Your task to perform on an android device: Find coffee shops on Maps Image 0: 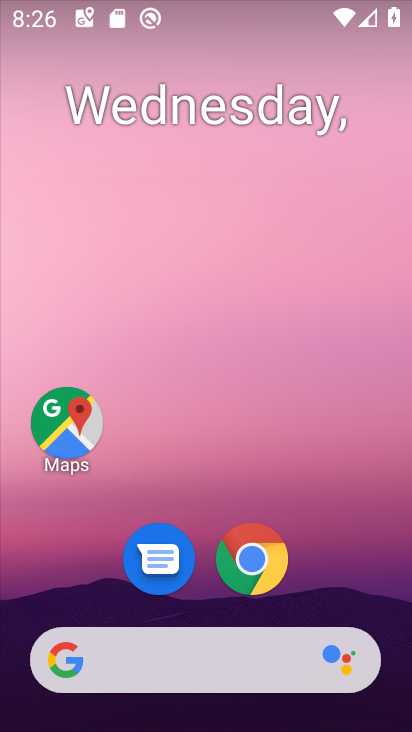
Step 0: drag from (366, 599) to (333, 145)
Your task to perform on an android device: Find coffee shops on Maps Image 1: 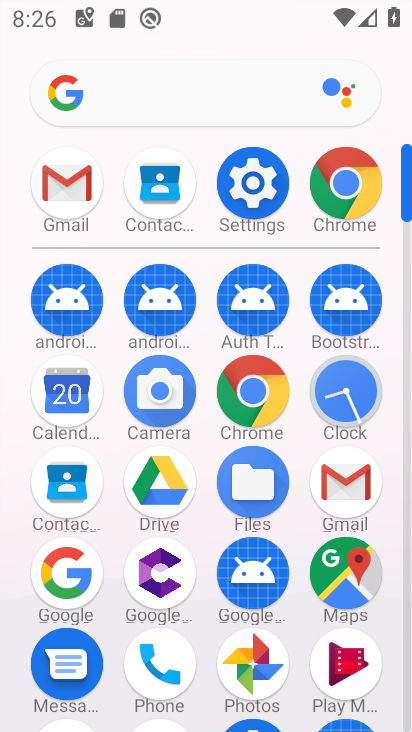
Step 1: click (339, 584)
Your task to perform on an android device: Find coffee shops on Maps Image 2: 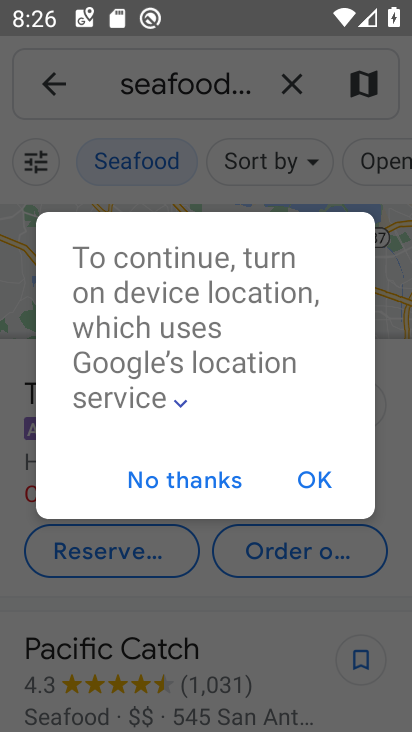
Step 2: click (304, 484)
Your task to perform on an android device: Find coffee shops on Maps Image 3: 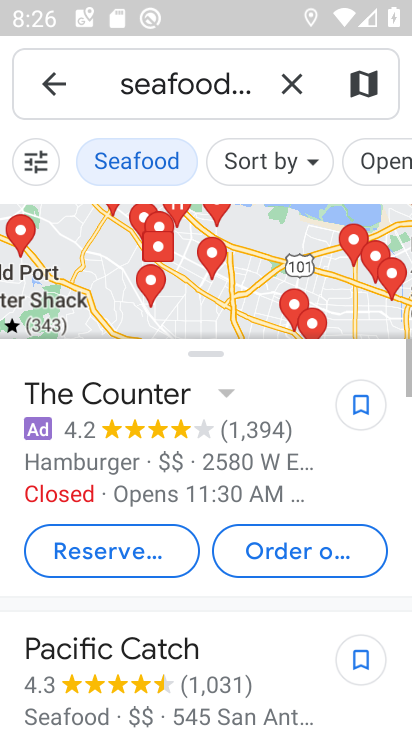
Step 3: click (289, 94)
Your task to perform on an android device: Find coffee shops on Maps Image 4: 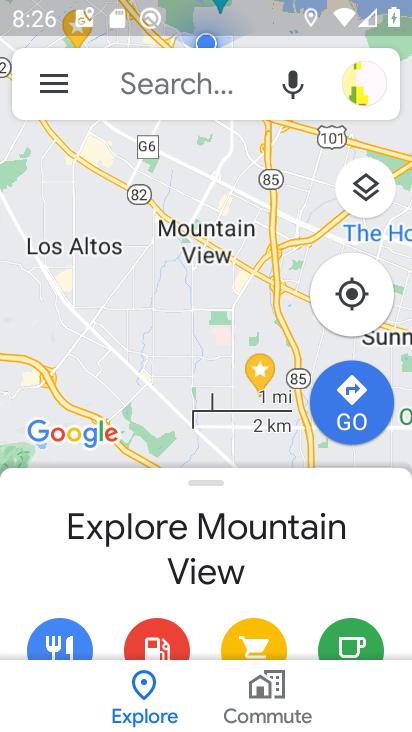
Step 4: click (187, 101)
Your task to perform on an android device: Find coffee shops on Maps Image 5: 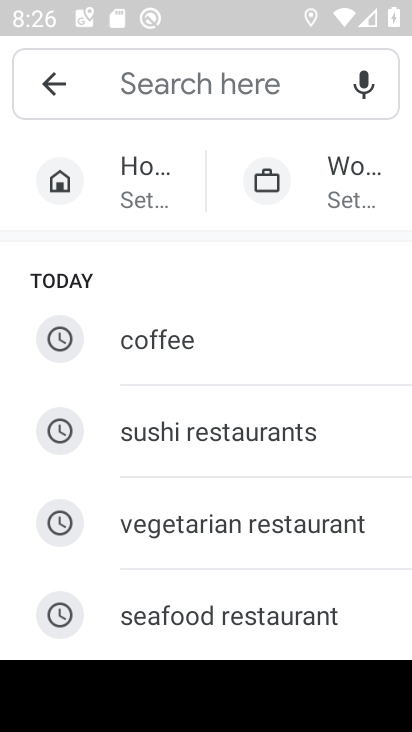
Step 5: type "coffee shops"
Your task to perform on an android device: Find coffee shops on Maps Image 6: 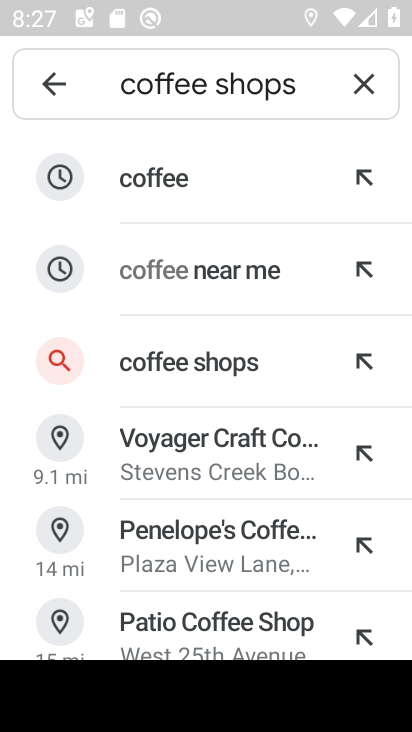
Step 6: click (233, 364)
Your task to perform on an android device: Find coffee shops on Maps Image 7: 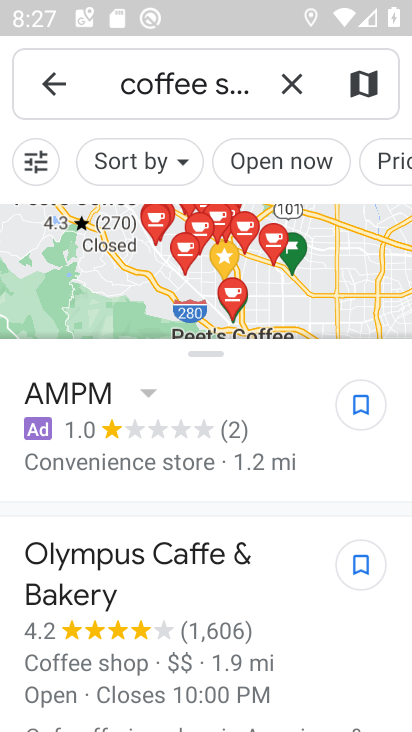
Step 7: task complete